Your task to perform on an android device: Go to Amazon Image 0: 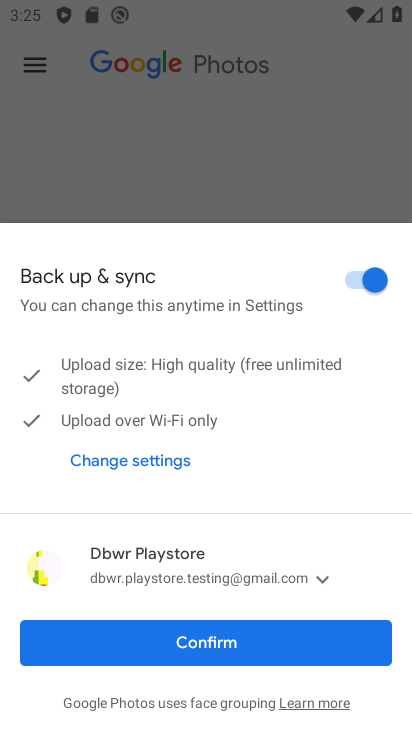
Step 0: press home button
Your task to perform on an android device: Go to Amazon Image 1: 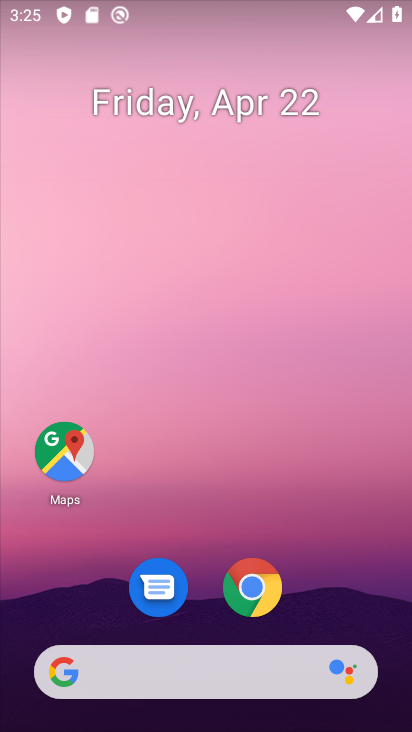
Step 1: click (252, 592)
Your task to perform on an android device: Go to Amazon Image 2: 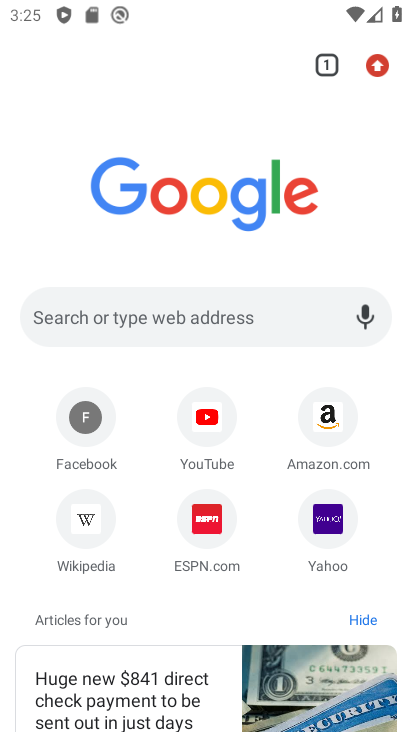
Step 2: click (324, 443)
Your task to perform on an android device: Go to Amazon Image 3: 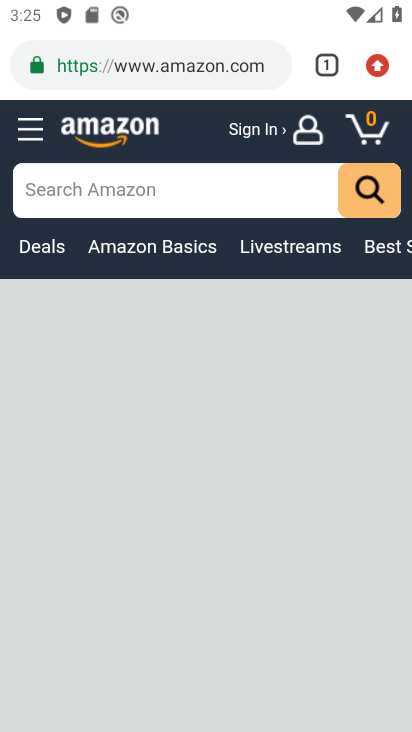
Step 3: task complete